Your task to perform on an android device: toggle location history Image 0: 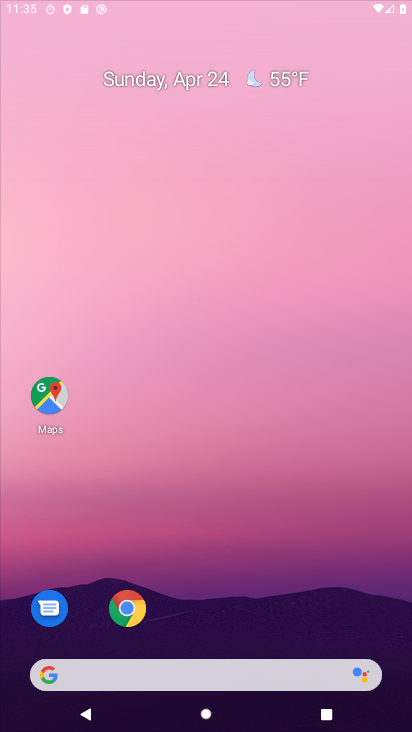
Step 0: click (279, 95)
Your task to perform on an android device: toggle location history Image 1: 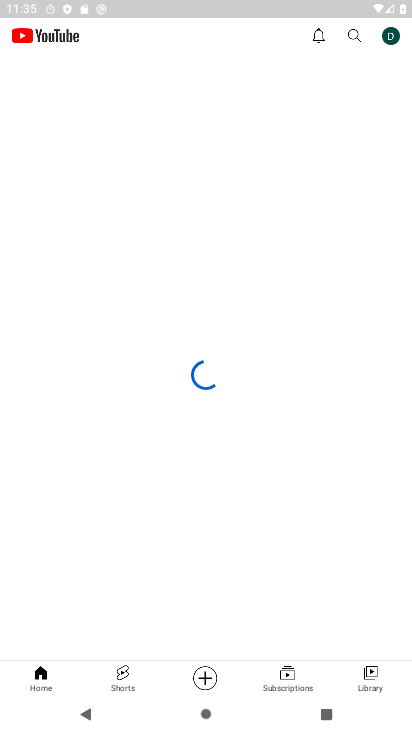
Step 1: press back button
Your task to perform on an android device: toggle location history Image 2: 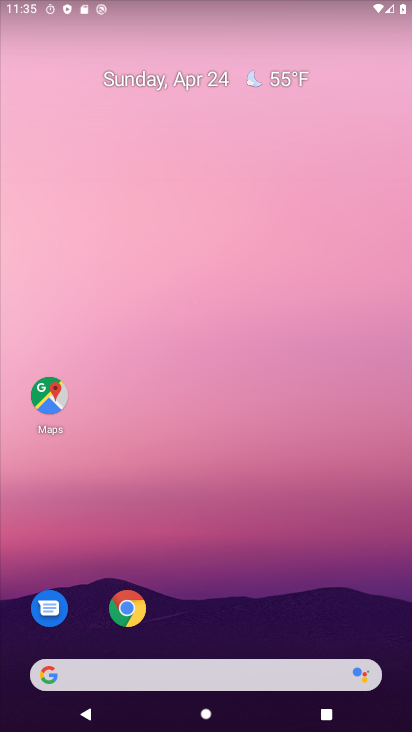
Step 2: drag from (210, 476) to (269, 125)
Your task to perform on an android device: toggle location history Image 3: 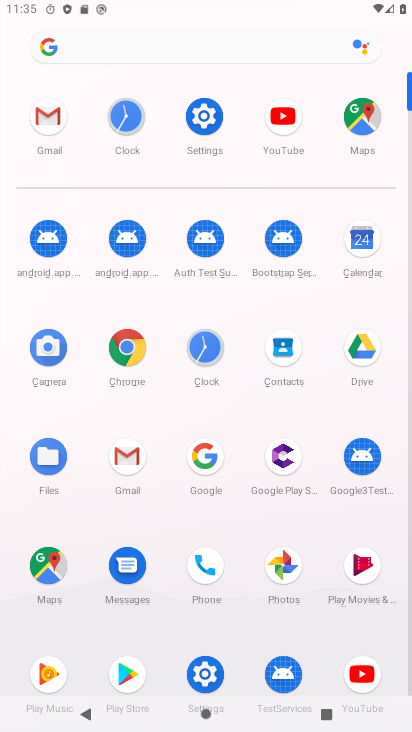
Step 3: click (213, 108)
Your task to perform on an android device: toggle location history Image 4: 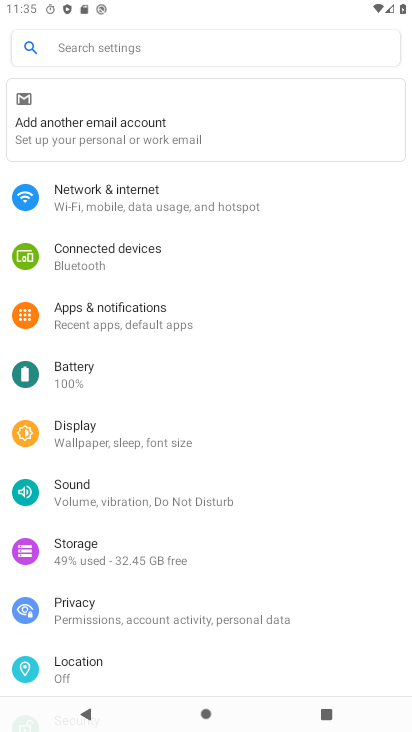
Step 4: click (91, 663)
Your task to perform on an android device: toggle location history Image 5: 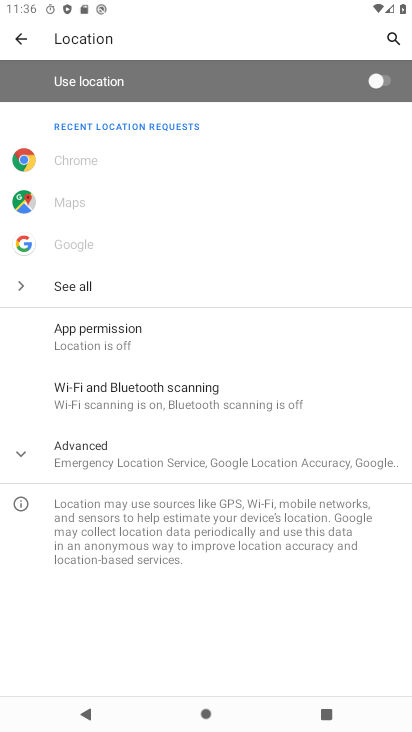
Step 5: click (182, 461)
Your task to perform on an android device: toggle location history Image 6: 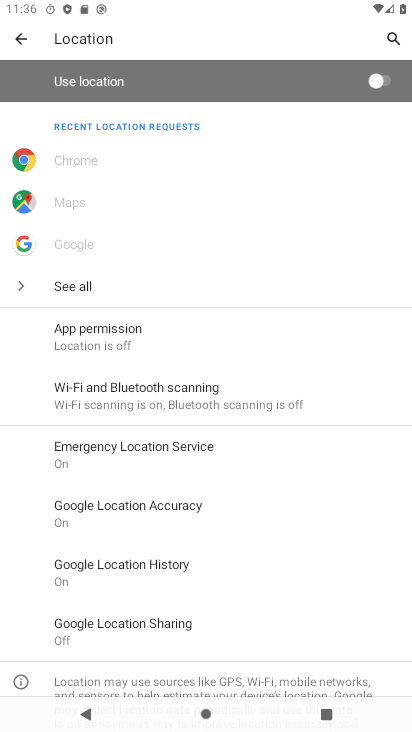
Step 6: click (122, 564)
Your task to perform on an android device: toggle location history Image 7: 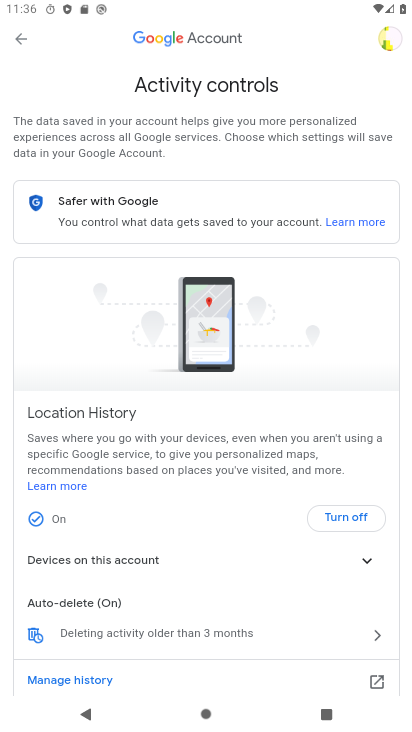
Step 7: click (340, 515)
Your task to perform on an android device: toggle location history Image 8: 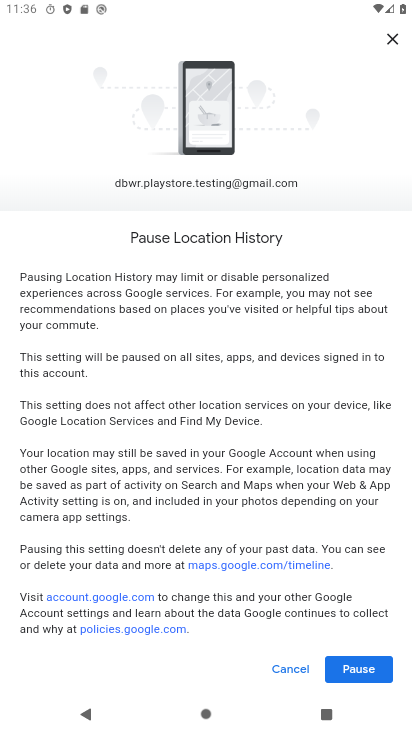
Step 8: click (360, 666)
Your task to perform on an android device: toggle location history Image 9: 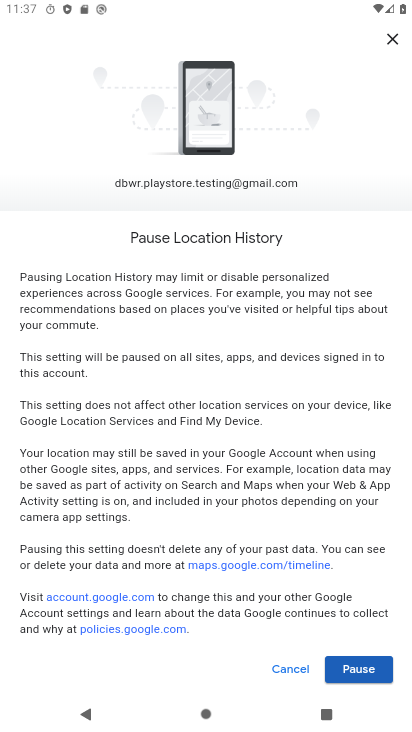
Step 9: click (352, 671)
Your task to perform on an android device: toggle location history Image 10: 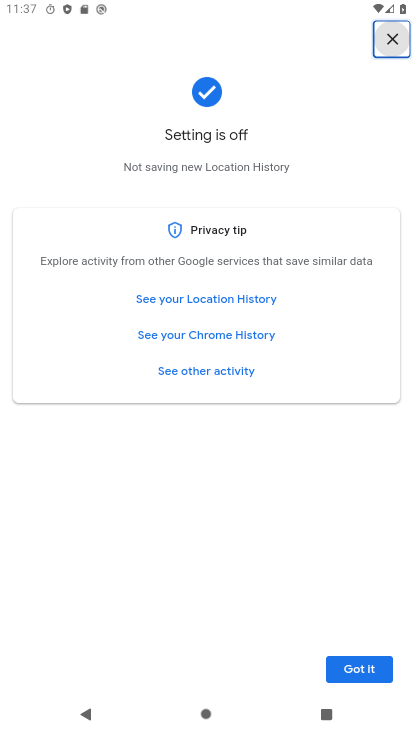
Step 10: click (352, 671)
Your task to perform on an android device: toggle location history Image 11: 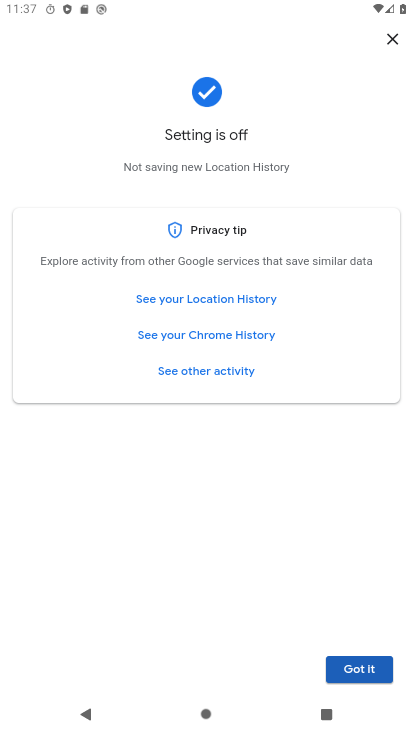
Step 11: click (372, 665)
Your task to perform on an android device: toggle location history Image 12: 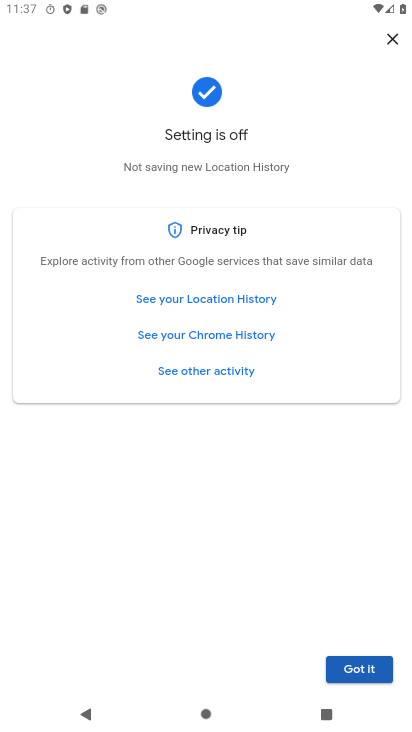
Step 12: task complete